Your task to perform on an android device: turn off data saver in the chrome app Image 0: 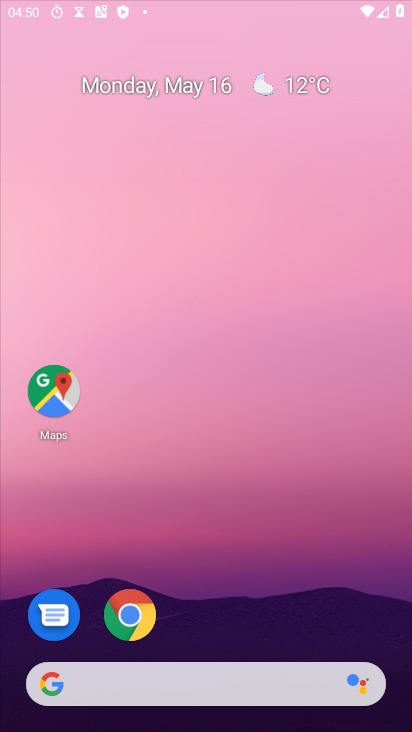
Step 0: click (124, 10)
Your task to perform on an android device: turn off data saver in the chrome app Image 1: 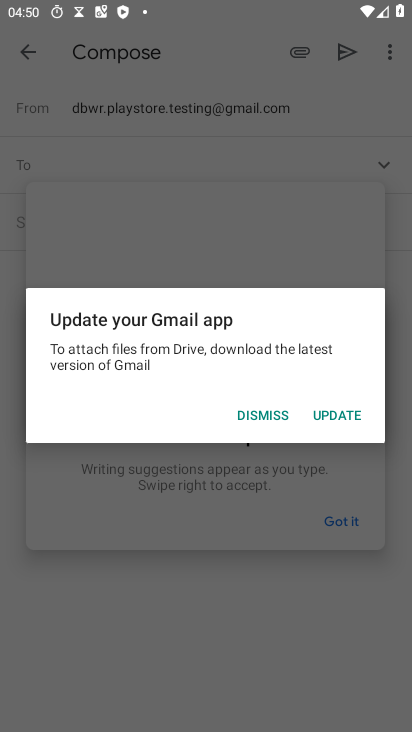
Step 1: drag from (212, 321) to (129, 4)
Your task to perform on an android device: turn off data saver in the chrome app Image 2: 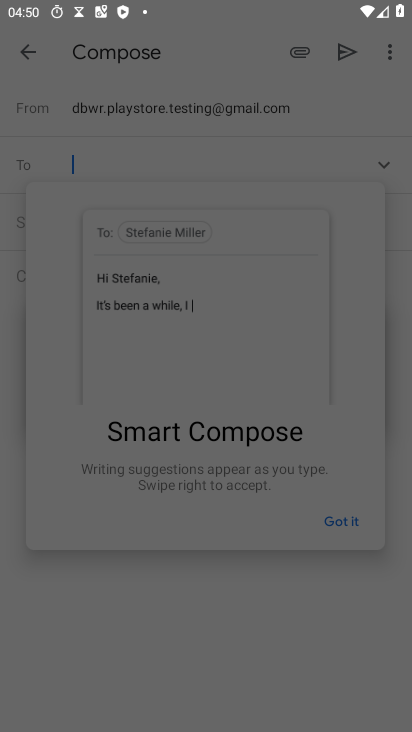
Step 2: click (23, 47)
Your task to perform on an android device: turn off data saver in the chrome app Image 3: 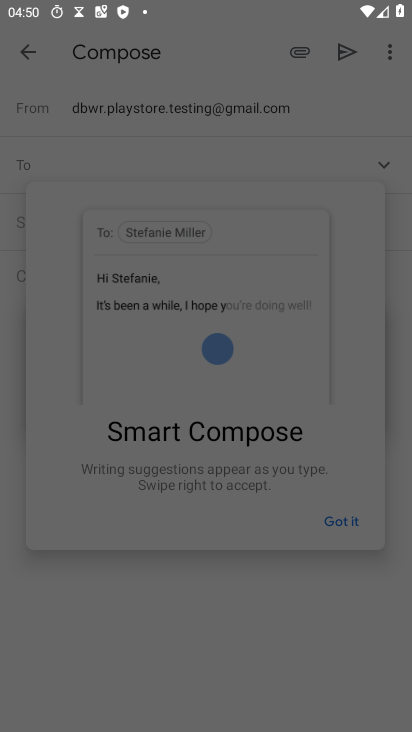
Step 3: click (348, 516)
Your task to perform on an android device: turn off data saver in the chrome app Image 4: 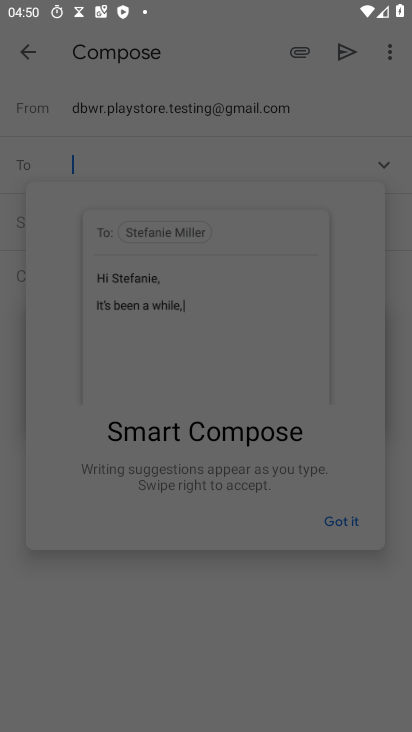
Step 4: click (345, 532)
Your task to perform on an android device: turn off data saver in the chrome app Image 5: 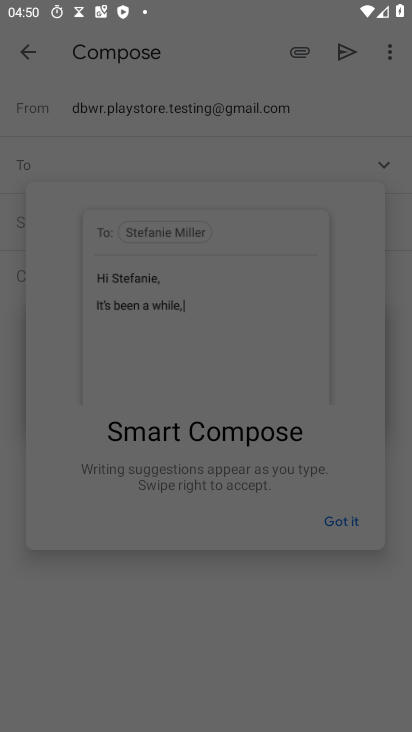
Step 5: click (345, 531)
Your task to perform on an android device: turn off data saver in the chrome app Image 6: 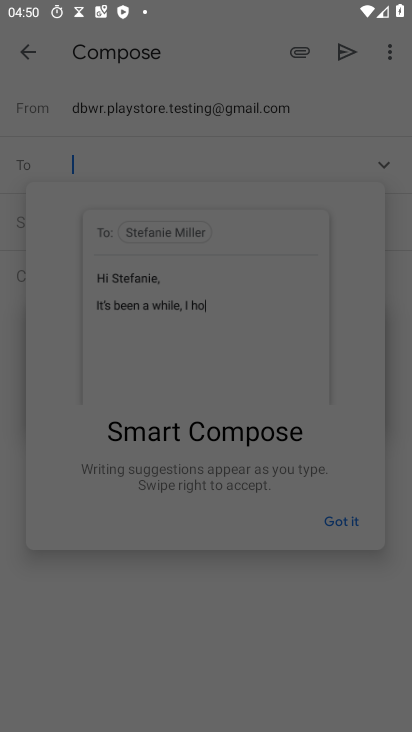
Step 6: click (345, 529)
Your task to perform on an android device: turn off data saver in the chrome app Image 7: 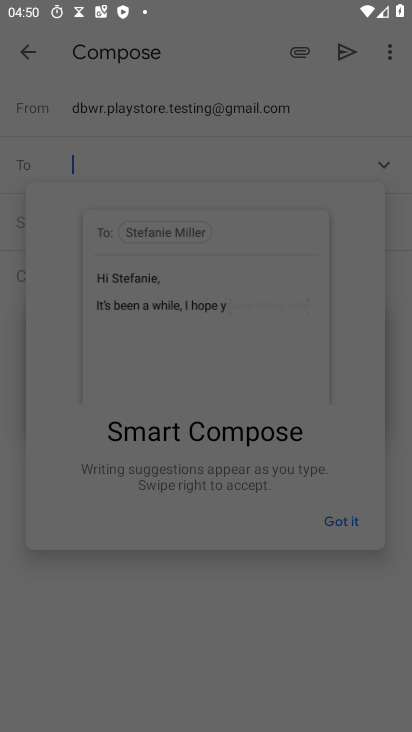
Step 7: click (345, 529)
Your task to perform on an android device: turn off data saver in the chrome app Image 8: 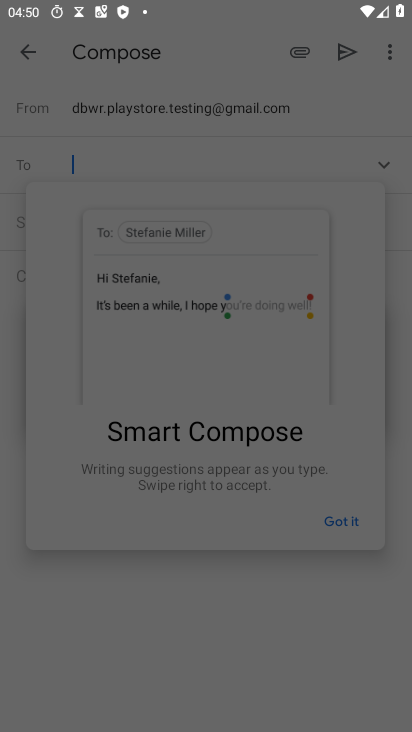
Step 8: click (344, 533)
Your task to perform on an android device: turn off data saver in the chrome app Image 9: 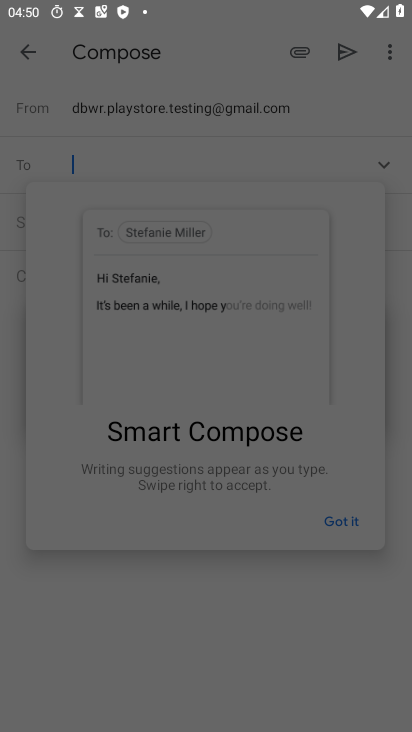
Step 9: click (334, 523)
Your task to perform on an android device: turn off data saver in the chrome app Image 10: 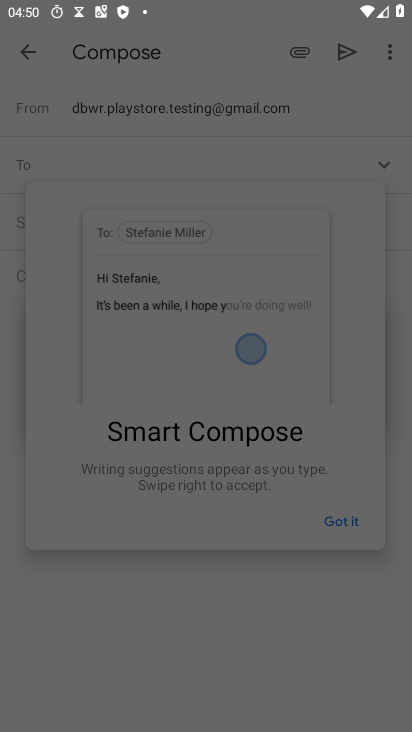
Step 10: click (350, 520)
Your task to perform on an android device: turn off data saver in the chrome app Image 11: 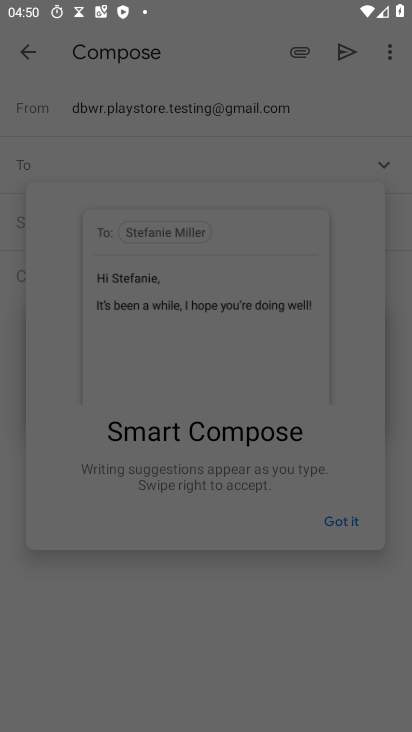
Step 11: click (347, 524)
Your task to perform on an android device: turn off data saver in the chrome app Image 12: 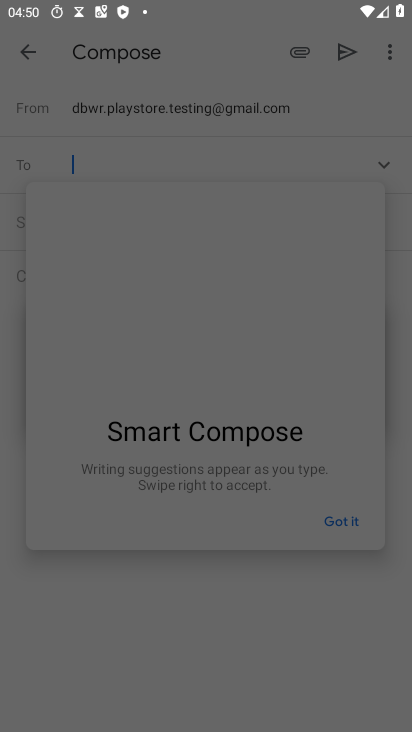
Step 12: click (347, 523)
Your task to perform on an android device: turn off data saver in the chrome app Image 13: 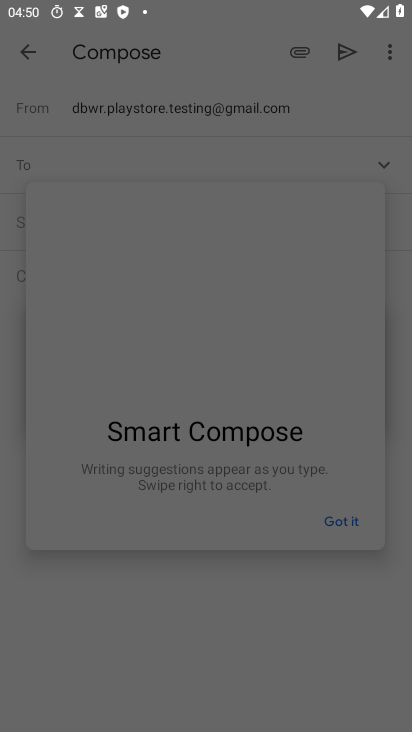
Step 13: click (347, 521)
Your task to perform on an android device: turn off data saver in the chrome app Image 14: 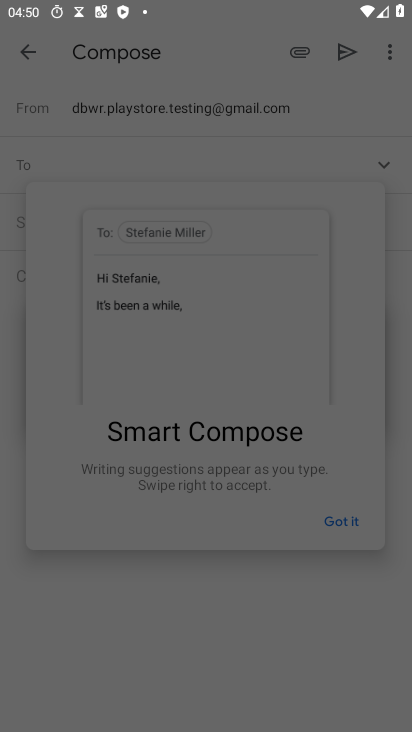
Step 14: click (356, 543)
Your task to perform on an android device: turn off data saver in the chrome app Image 15: 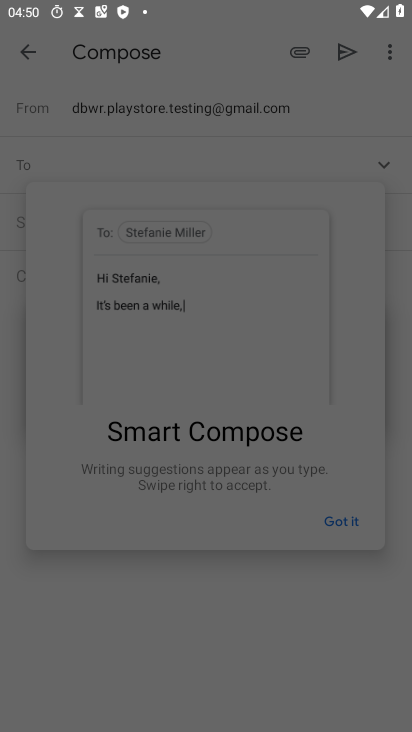
Step 15: click (360, 546)
Your task to perform on an android device: turn off data saver in the chrome app Image 16: 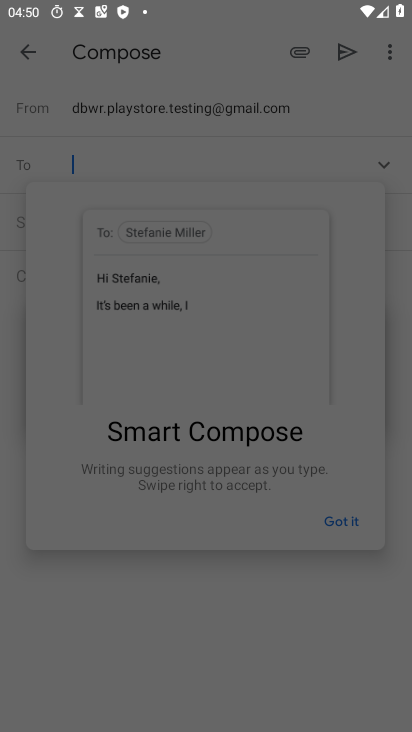
Step 16: click (360, 546)
Your task to perform on an android device: turn off data saver in the chrome app Image 17: 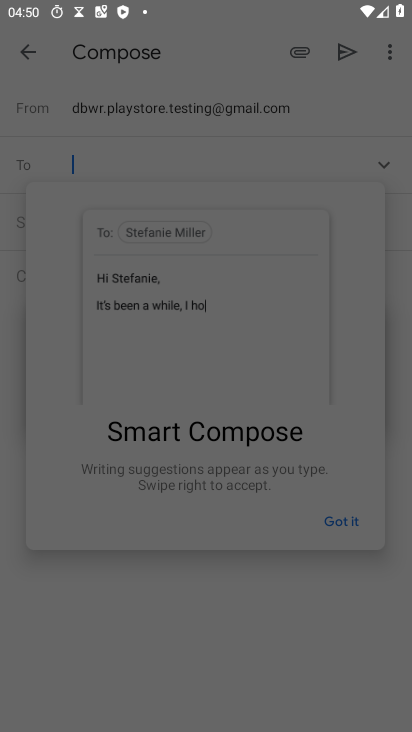
Step 17: click (359, 547)
Your task to perform on an android device: turn off data saver in the chrome app Image 18: 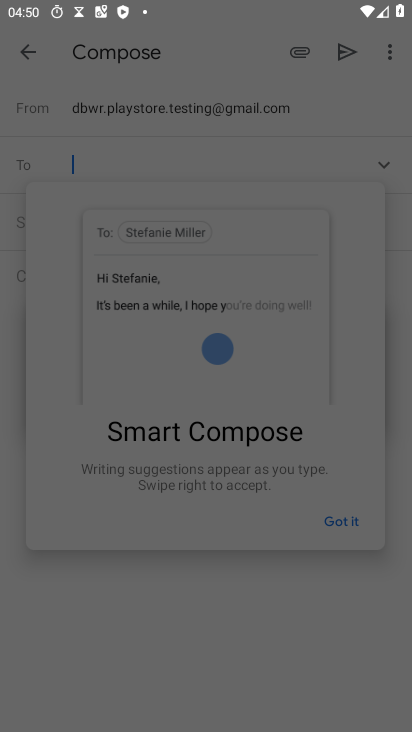
Step 18: press back button
Your task to perform on an android device: turn off data saver in the chrome app Image 19: 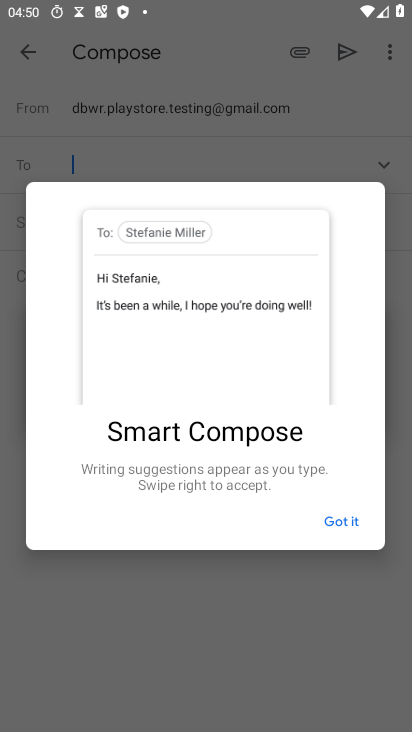
Step 19: press back button
Your task to perform on an android device: turn off data saver in the chrome app Image 20: 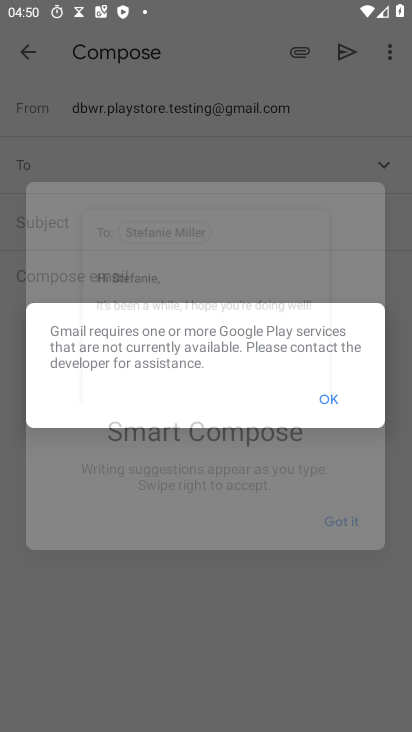
Step 20: press back button
Your task to perform on an android device: turn off data saver in the chrome app Image 21: 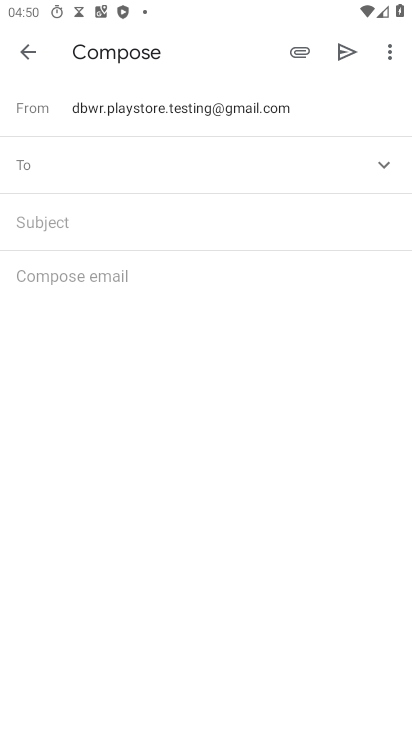
Step 21: click (22, 55)
Your task to perform on an android device: turn off data saver in the chrome app Image 22: 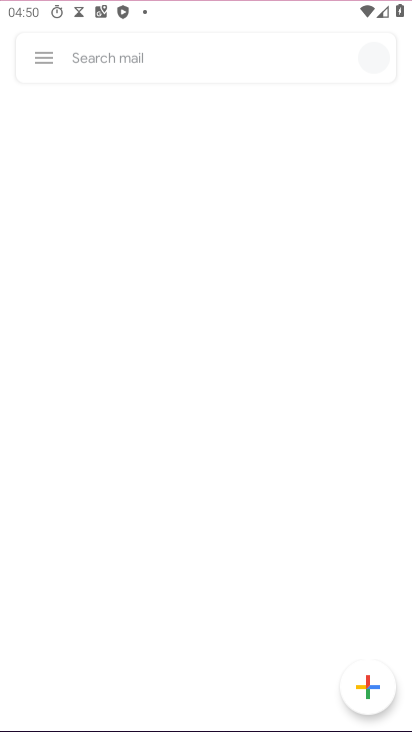
Step 22: click (16, 46)
Your task to perform on an android device: turn off data saver in the chrome app Image 23: 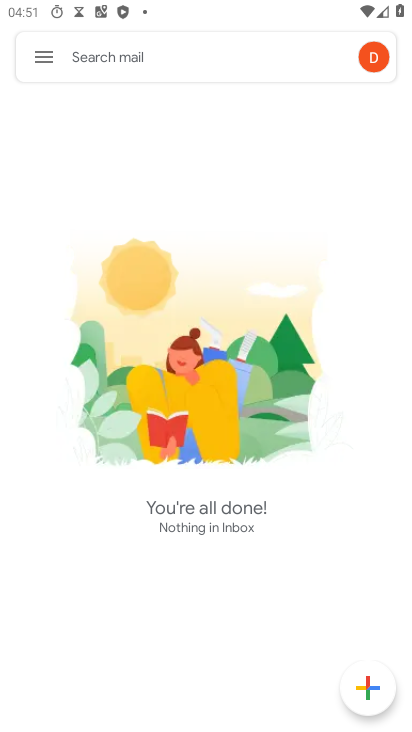
Step 23: press home button
Your task to perform on an android device: turn off data saver in the chrome app Image 24: 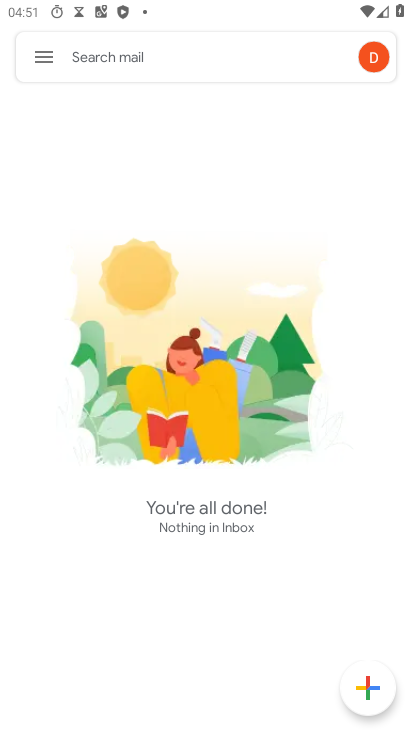
Step 24: press home button
Your task to perform on an android device: turn off data saver in the chrome app Image 25: 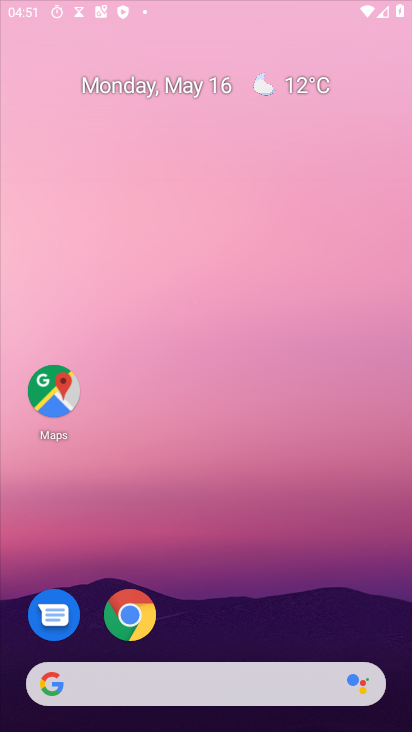
Step 25: press home button
Your task to perform on an android device: turn off data saver in the chrome app Image 26: 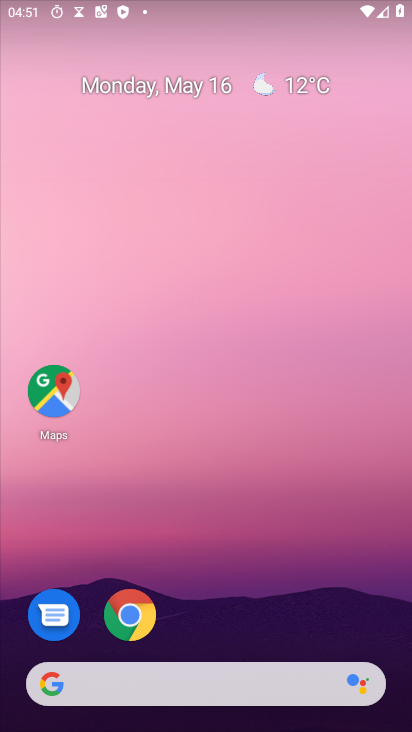
Step 26: press home button
Your task to perform on an android device: turn off data saver in the chrome app Image 27: 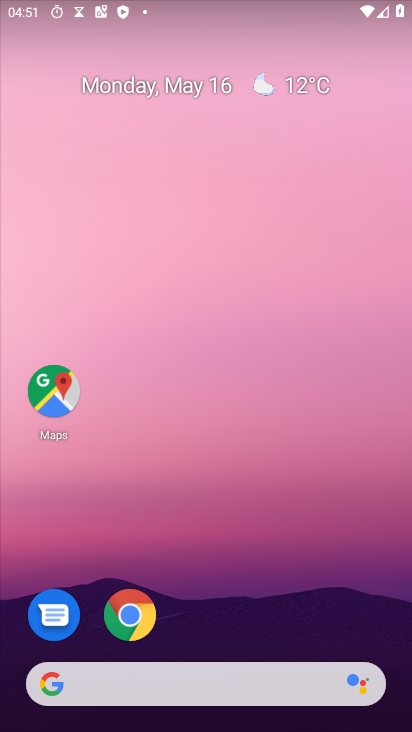
Step 27: drag from (238, 601) to (169, 72)
Your task to perform on an android device: turn off data saver in the chrome app Image 28: 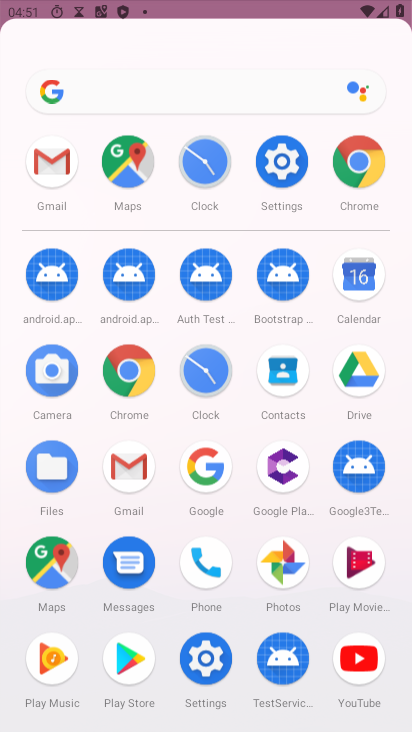
Step 28: drag from (208, 448) to (200, 0)
Your task to perform on an android device: turn off data saver in the chrome app Image 29: 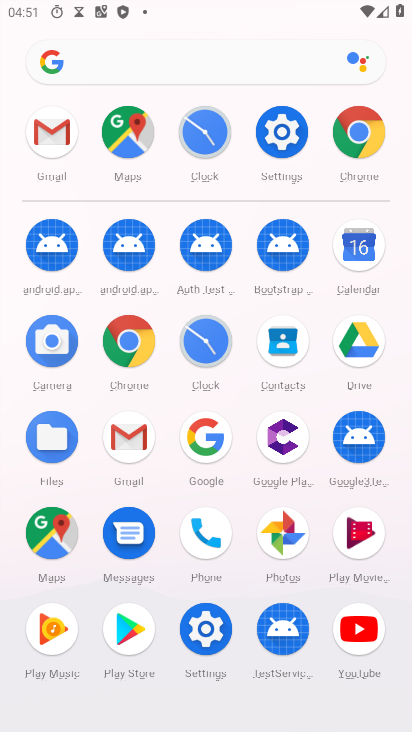
Step 29: click (367, 149)
Your task to perform on an android device: turn off data saver in the chrome app Image 30: 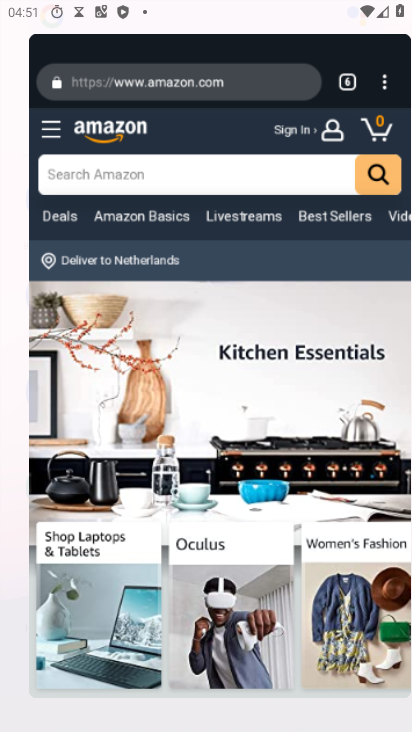
Step 30: click (367, 149)
Your task to perform on an android device: turn off data saver in the chrome app Image 31: 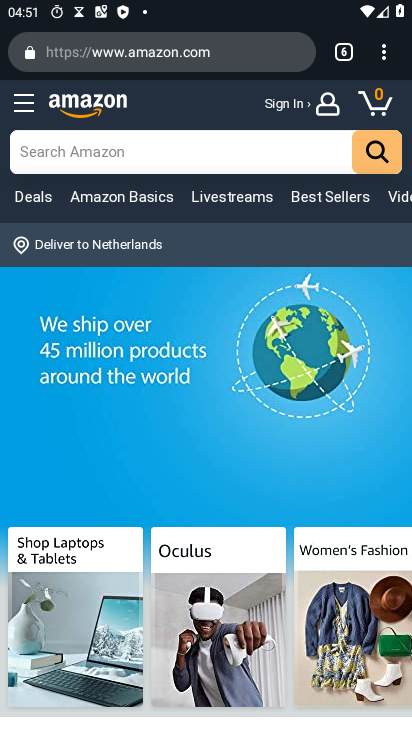
Step 31: drag from (382, 53) to (190, 647)
Your task to perform on an android device: turn off data saver in the chrome app Image 32: 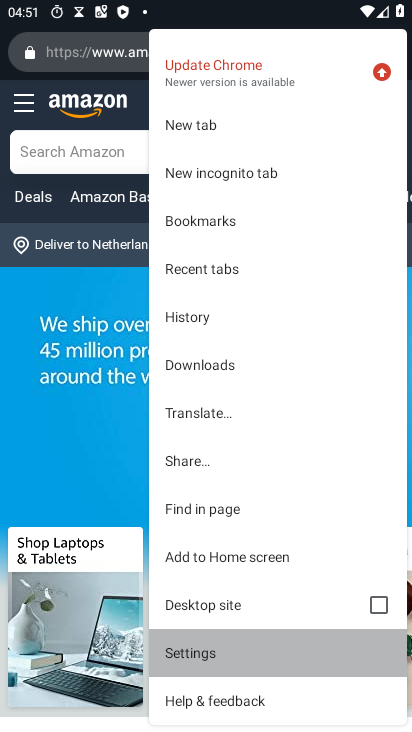
Step 32: click (190, 647)
Your task to perform on an android device: turn off data saver in the chrome app Image 33: 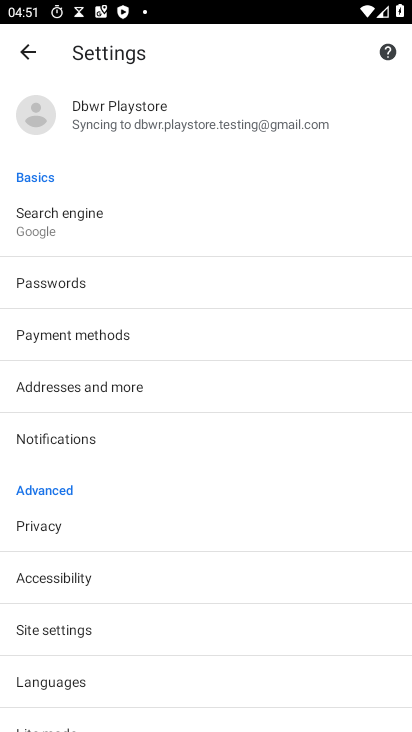
Step 33: drag from (111, 499) to (13, 110)
Your task to perform on an android device: turn off data saver in the chrome app Image 34: 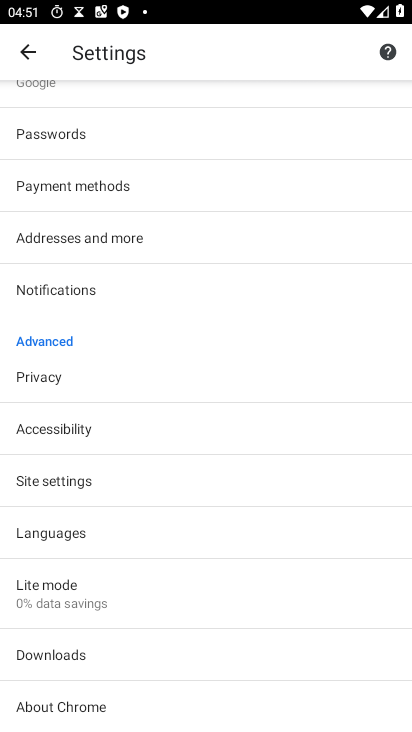
Step 34: drag from (112, 494) to (39, 185)
Your task to perform on an android device: turn off data saver in the chrome app Image 35: 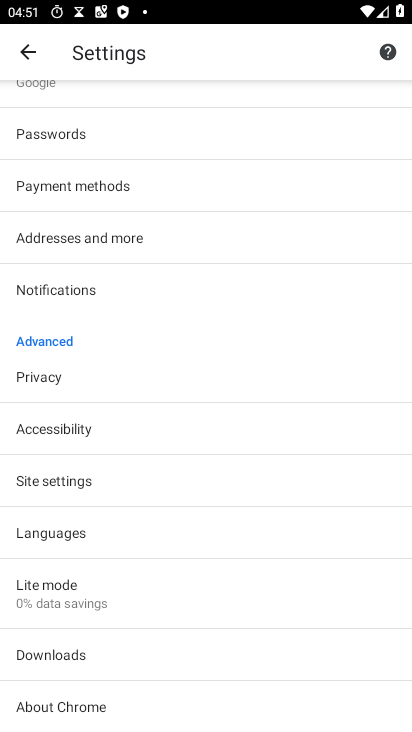
Step 35: click (49, 476)
Your task to perform on an android device: turn off data saver in the chrome app Image 36: 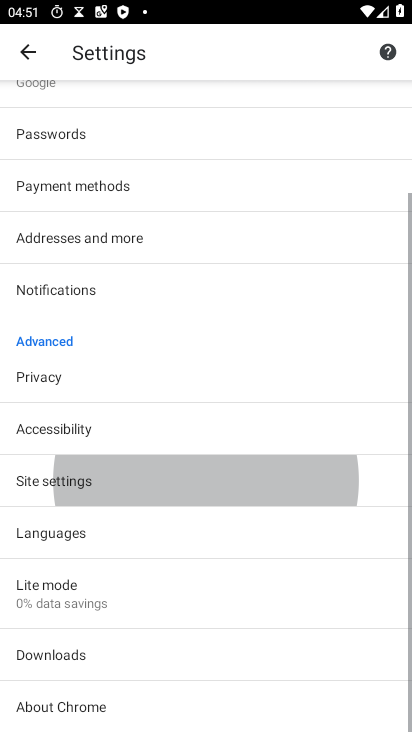
Step 36: click (49, 476)
Your task to perform on an android device: turn off data saver in the chrome app Image 37: 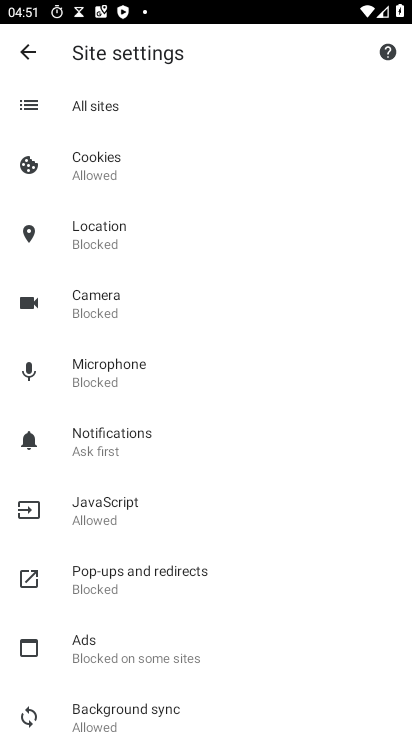
Step 37: drag from (185, 541) to (99, 23)
Your task to perform on an android device: turn off data saver in the chrome app Image 38: 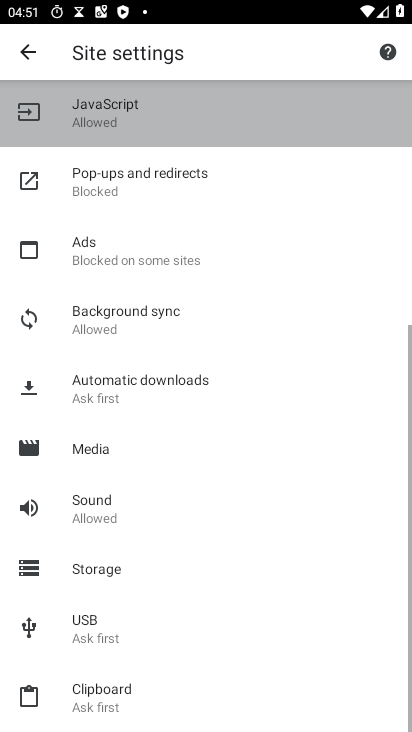
Step 38: drag from (157, 476) to (378, 20)
Your task to perform on an android device: turn off data saver in the chrome app Image 39: 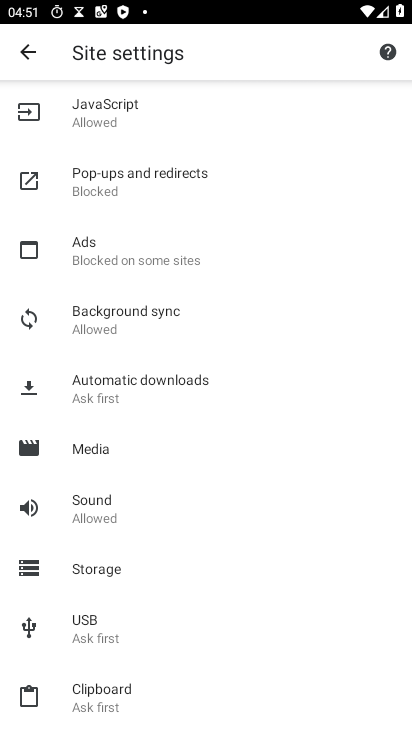
Step 39: drag from (99, 203) to (136, 480)
Your task to perform on an android device: turn off data saver in the chrome app Image 40: 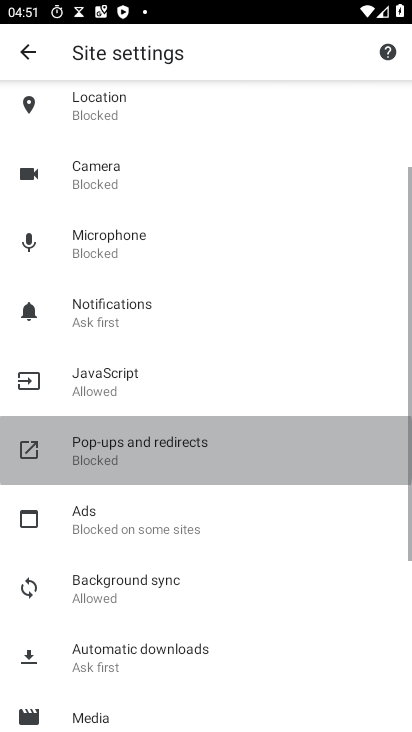
Step 40: drag from (59, 208) to (163, 468)
Your task to perform on an android device: turn off data saver in the chrome app Image 41: 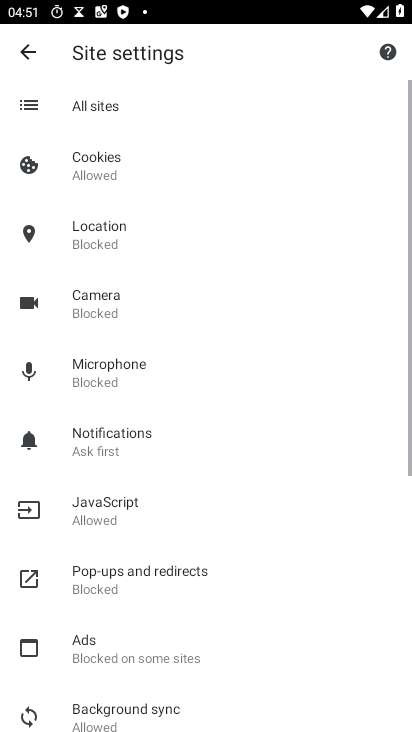
Step 41: drag from (161, 473) to (170, 558)
Your task to perform on an android device: turn off data saver in the chrome app Image 42: 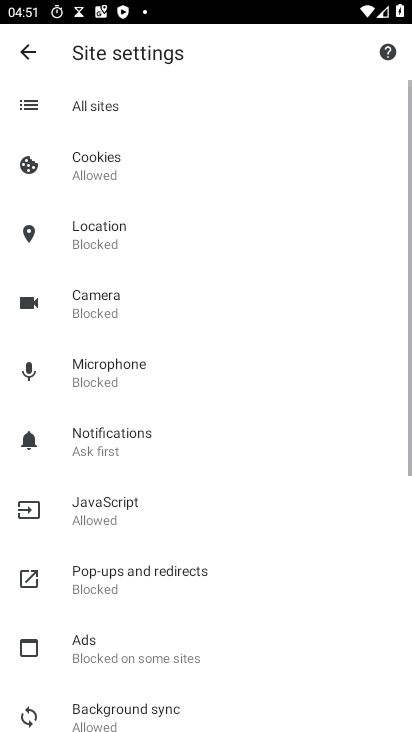
Step 42: click (111, 534)
Your task to perform on an android device: turn off data saver in the chrome app Image 43: 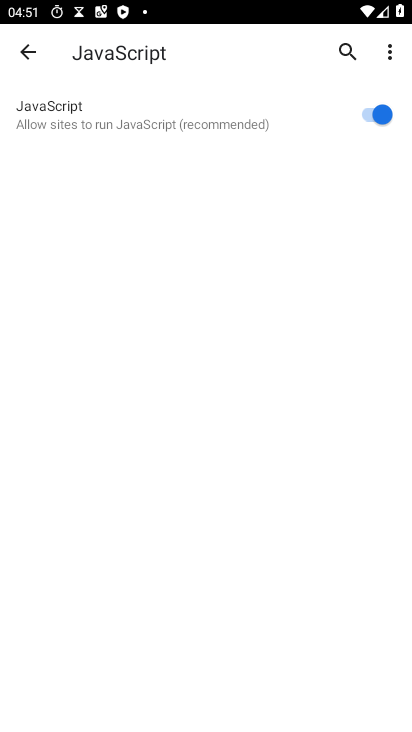
Step 43: click (26, 48)
Your task to perform on an android device: turn off data saver in the chrome app Image 44: 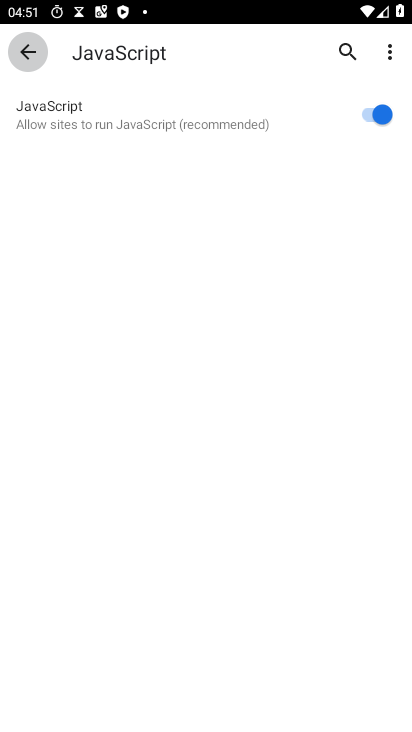
Step 44: click (29, 44)
Your task to perform on an android device: turn off data saver in the chrome app Image 45: 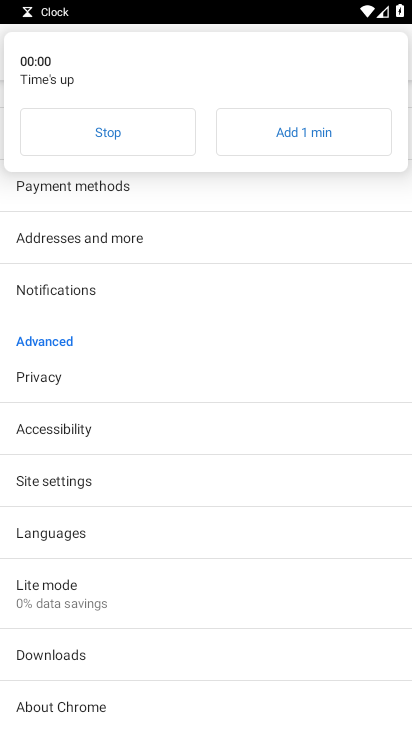
Step 45: click (46, 586)
Your task to perform on an android device: turn off data saver in the chrome app Image 46: 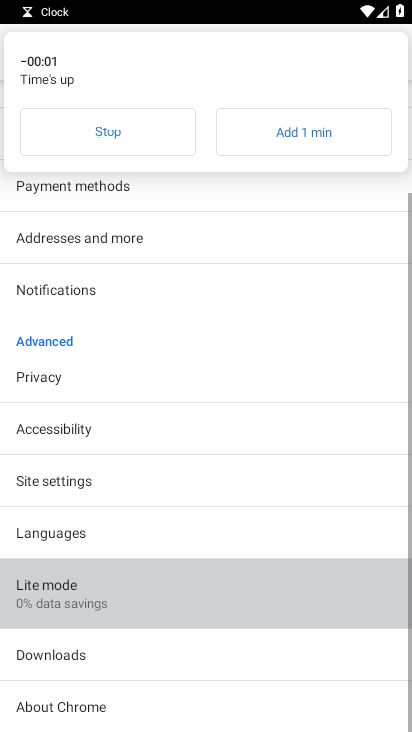
Step 46: click (46, 586)
Your task to perform on an android device: turn off data saver in the chrome app Image 47: 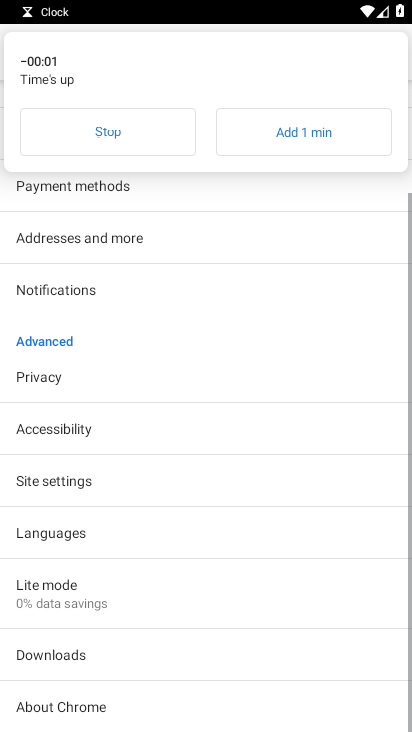
Step 47: click (48, 586)
Your task to perform on an android device: turn off data saver in the chrome app Image 48: 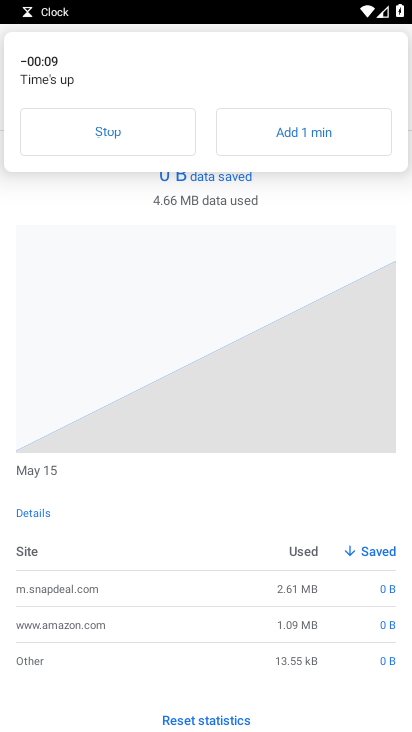
Step 48: click (116, 136)
Your task to perform on an android device: turn off data saver in the chrome app Image 49: 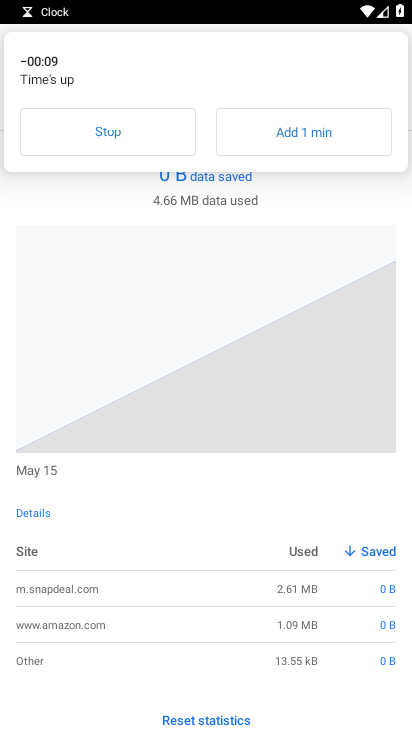
Step 49: click (116, 136)
Your task to perform on an android device: turn off data saver in the chrome app Image 50: 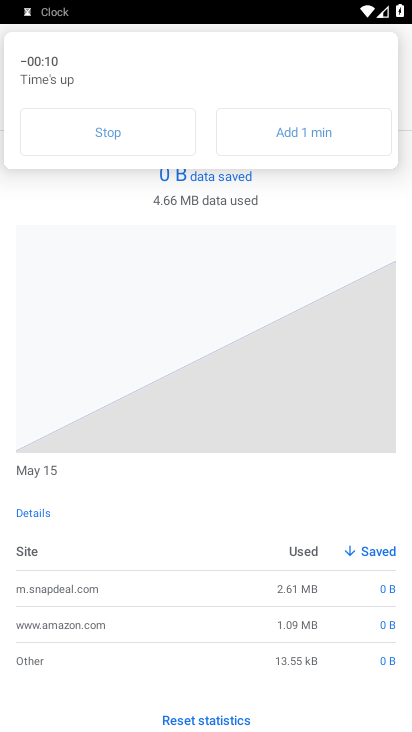
Step 50: click (116, 137)
Your task to perform on an android device: turn off data saver in the chrome app Image 51: 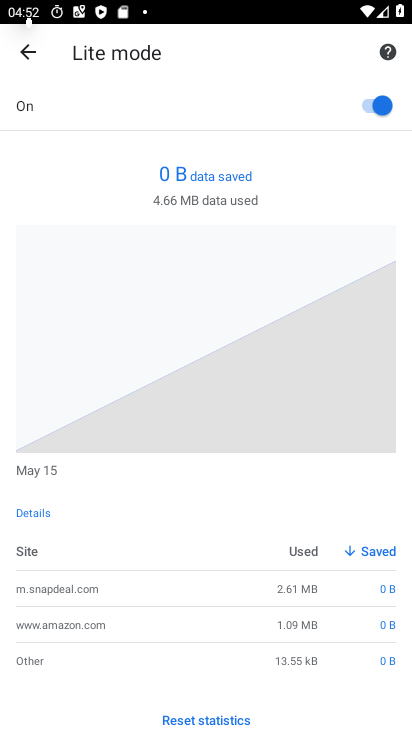
Step 51: click (117, 138)
Your task to perform on an android device: turn off data saver in the chrome app Image 52: 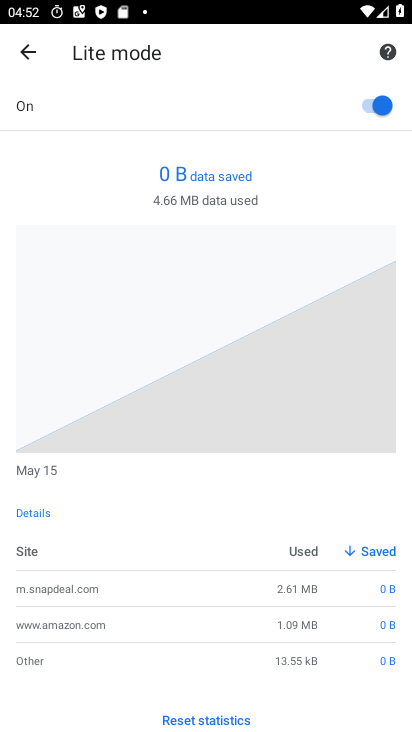
Step 52: click (122, 137)
Your task to perform on an android device: turn off data saver in the chrome app Image 53: 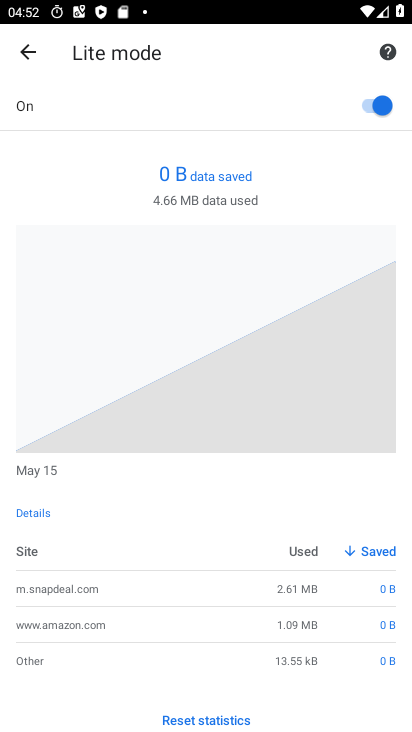
Step 53: click (24, 56)
Your task to perform on an android device: turn off data saver in the chrome app Image 54: 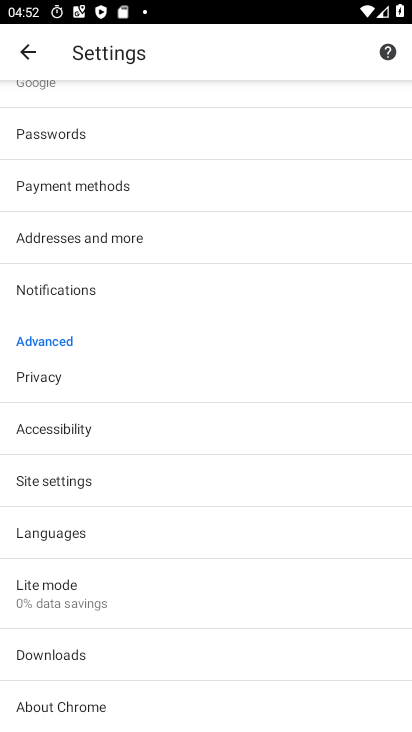
Step 54: click (43, 489)
Your task to perform on an android device: turn off data saver in the chrome app Image 55: 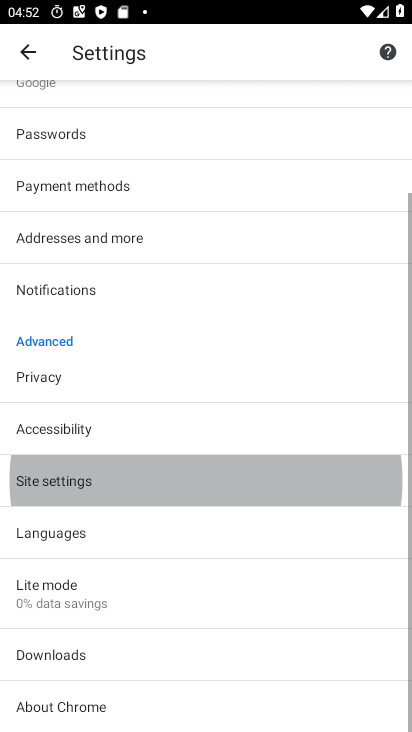
Step 55: click (40, 484)
Your task to perform on an android device: turn off data saver in the chrome app Image 56: 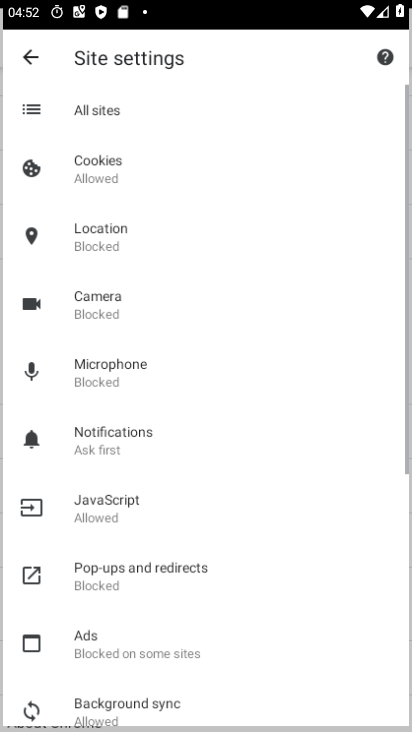
Step 56: click (43, 482)
Your task to perform on an android device: turn off data saver in the chrome app Image 57: 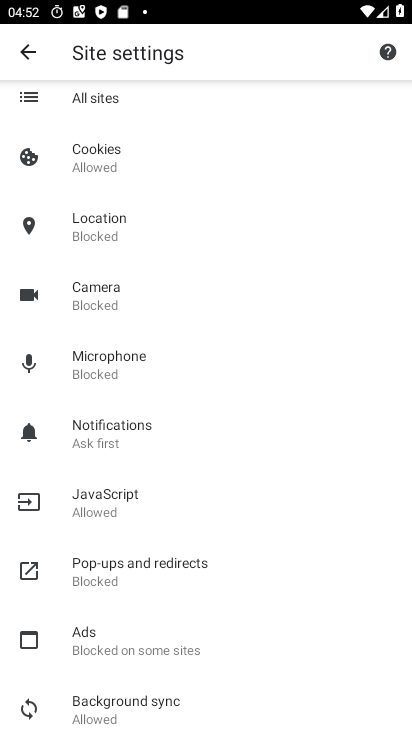
Step 57: click (30, 51)
Your task to perform on an android device: turn off data saver in the chrome app Image 58: 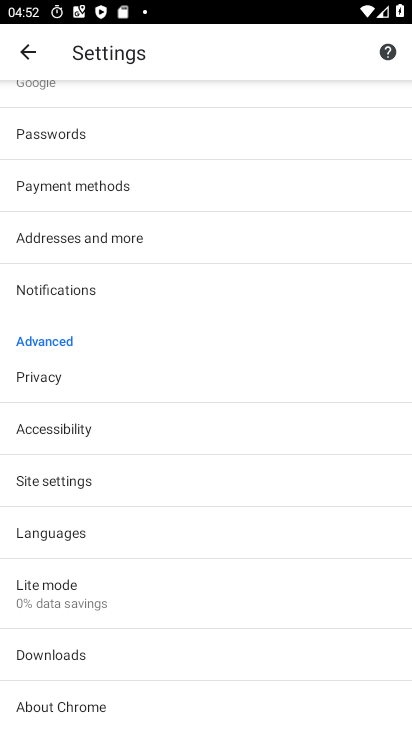
Step 58: click (54, 583)
Your task to perform on an android device: turn off data saver in the chrome app Image 59: 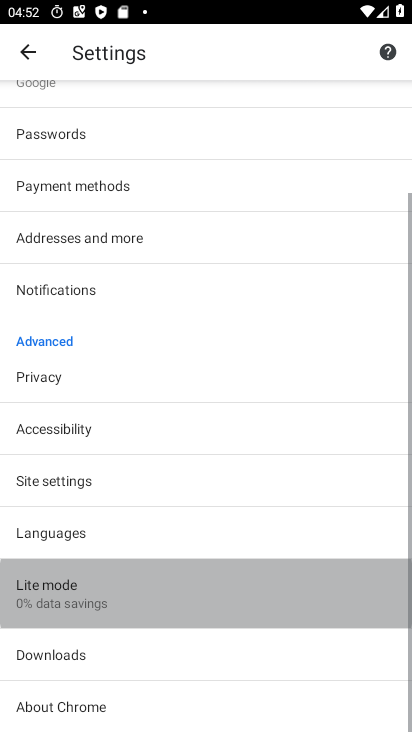
Step 59: click (66, 640)
Your task to perform on an android device: turn off data saver in the chrome app Image 60: 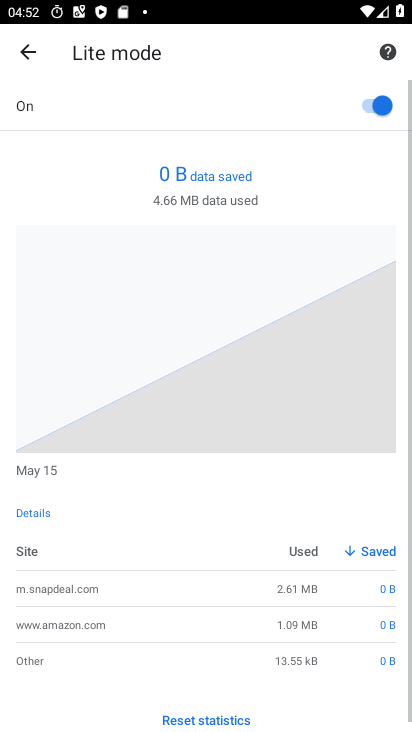
Step 60: task complete